Your task to perform on an android device: change the clock display to digital Image 0: 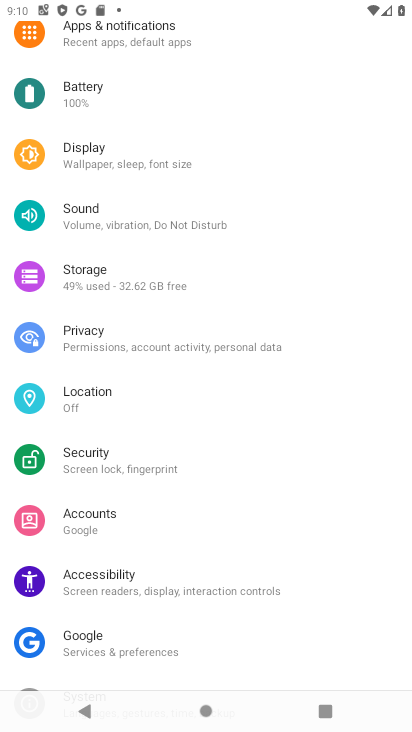
Step 0: press home button
Your task to perform on an android device: change the clock display to digital Image 1: 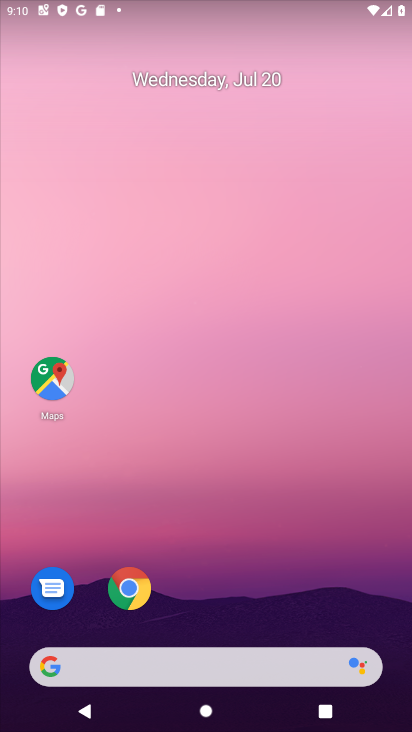
Step 1: drag from (337, 610) to (396, 137)
Your task to perform on an android device: change the clock display to digital Image 2: 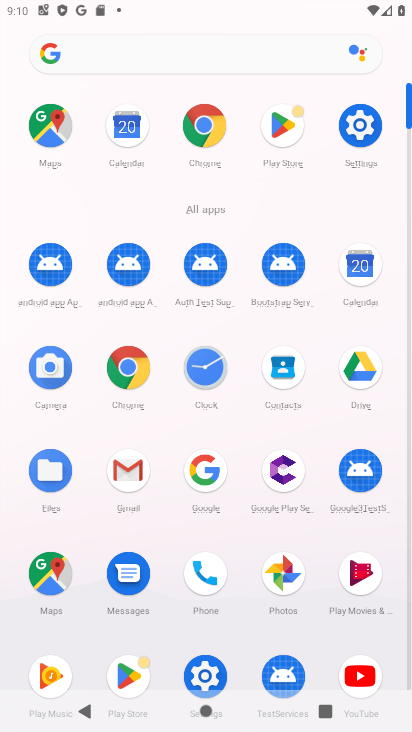
Step 2: click (216, 377)
Your task to perform on an android device: change the clock display to digital Image 3: 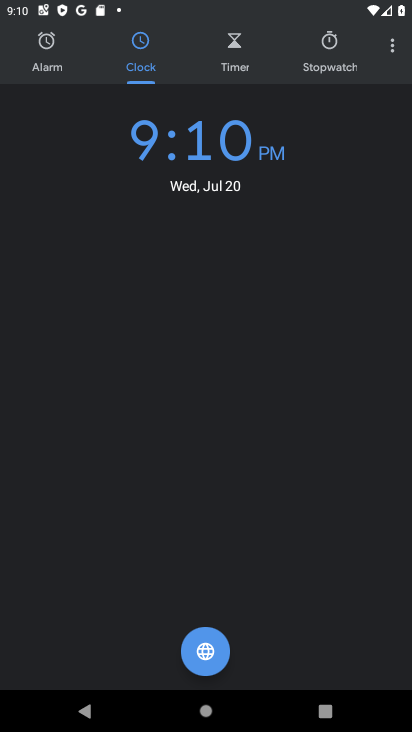
Step 3: click (394, 54)
Your task to perform on an android device: change the clock display to digital Image 4: 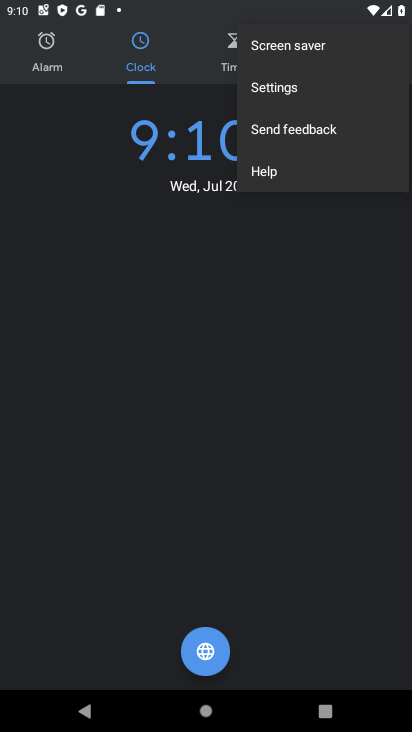
Step 4: click (311, 94)
Your task to perform on an android device: change the clock display to digital Image 5: 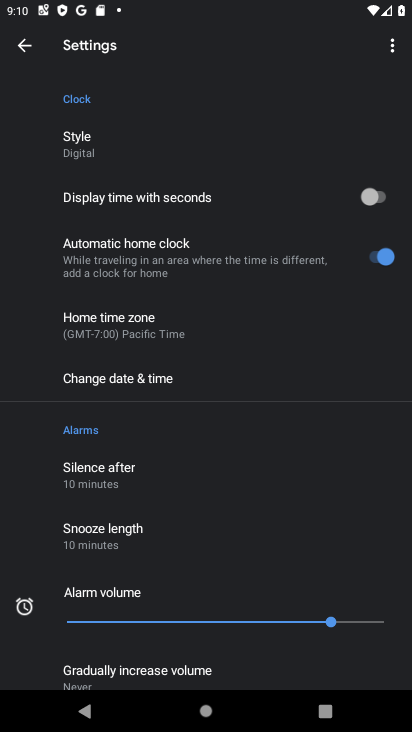
Step 5: task complete